Your task to perform on an android device: Open Yahoo.com Image 0: 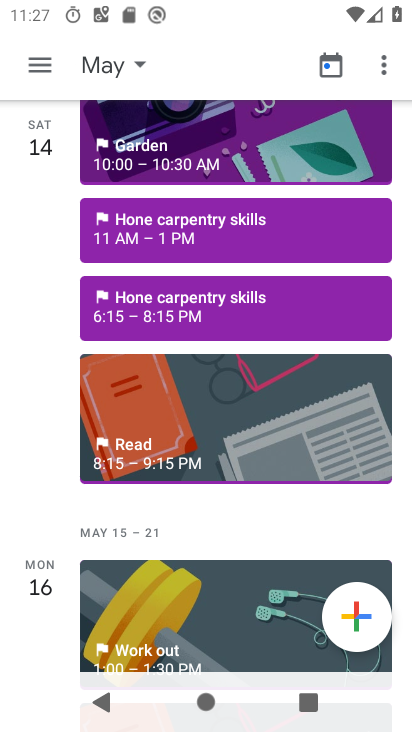
Step 0: press home button
Your task to perform on an android device: Open Yahoo.com Image 1: 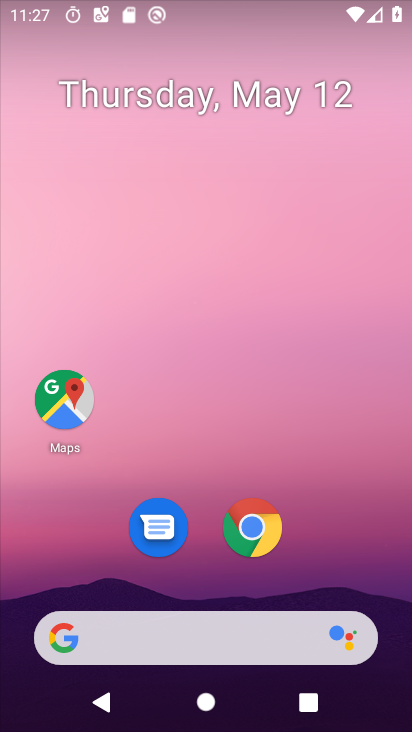
Step 1: click (248, 559)
Your task to perform on an android device: Open Yahoo.com Image 2: 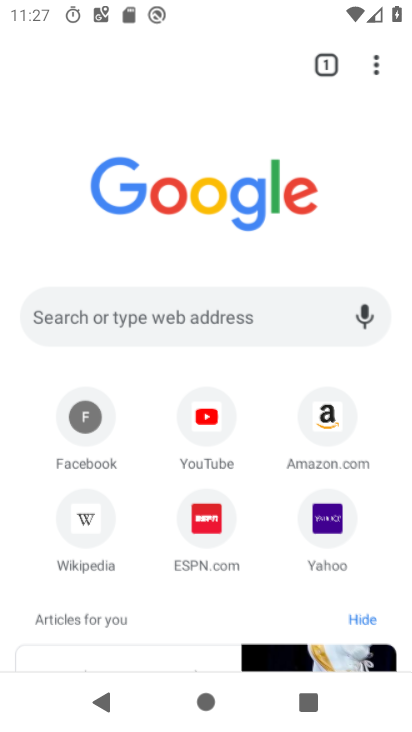
Step 2: click (327, 528)
Your task to perform on an android device: Open Yahoo.com Image 3: 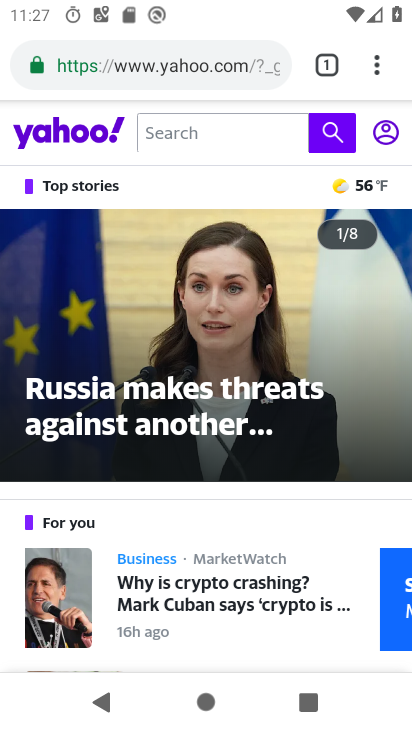
Step 3: task complete